Your task to perform on an android device: What's the weather going to be tomorrow? Image 0: 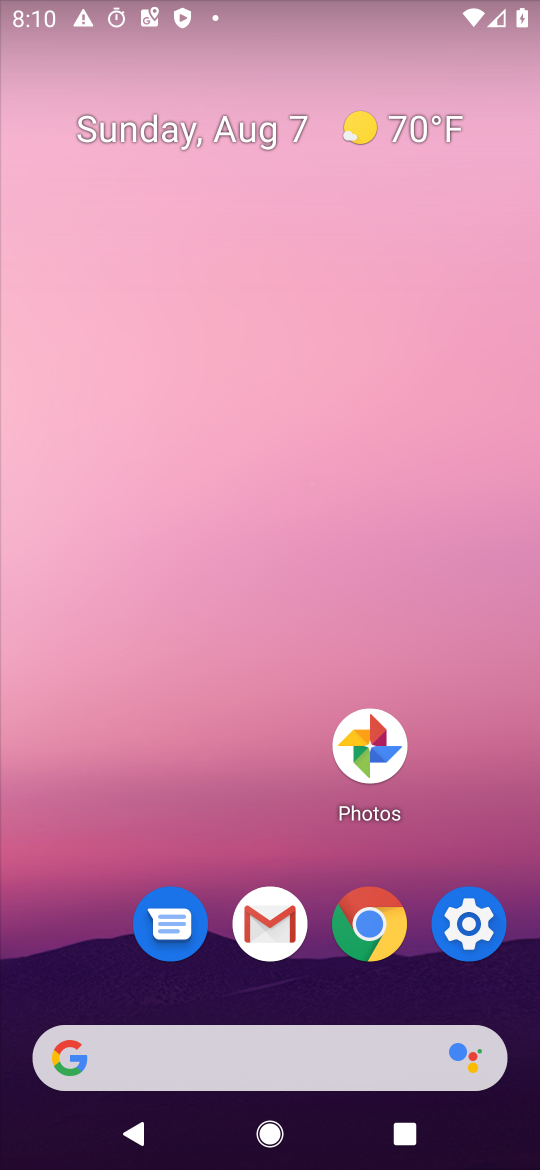
Step 0: drag from (372, 1087) to (394, 282)
Your task to perform on an android device: What's the weather going to be tomorrow? Image 1: 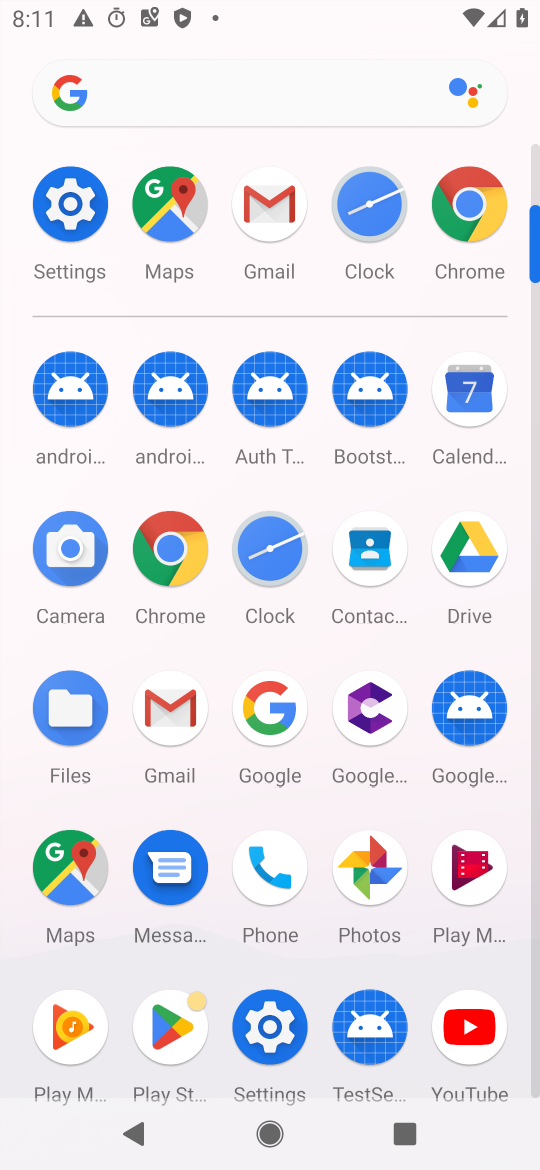
Step 1: click (223, 87)
Your task to perform on an android device: What's the weather going to be tomorrow? Image 2: 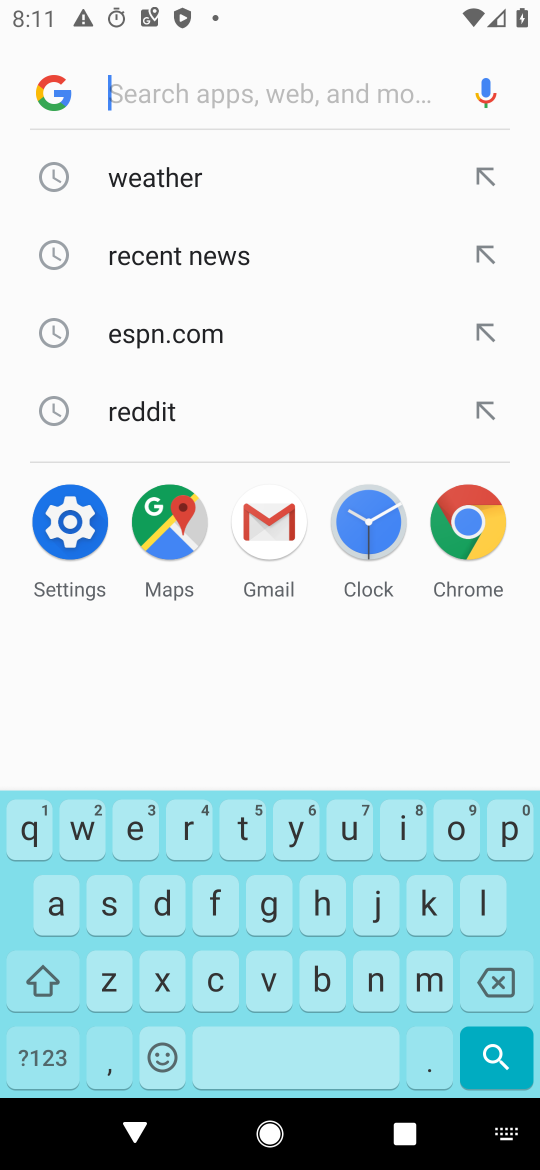
Step 2: click (179, 153)
Your task to perform on an android device: What's the weather going to be tomorrow? Image 3: 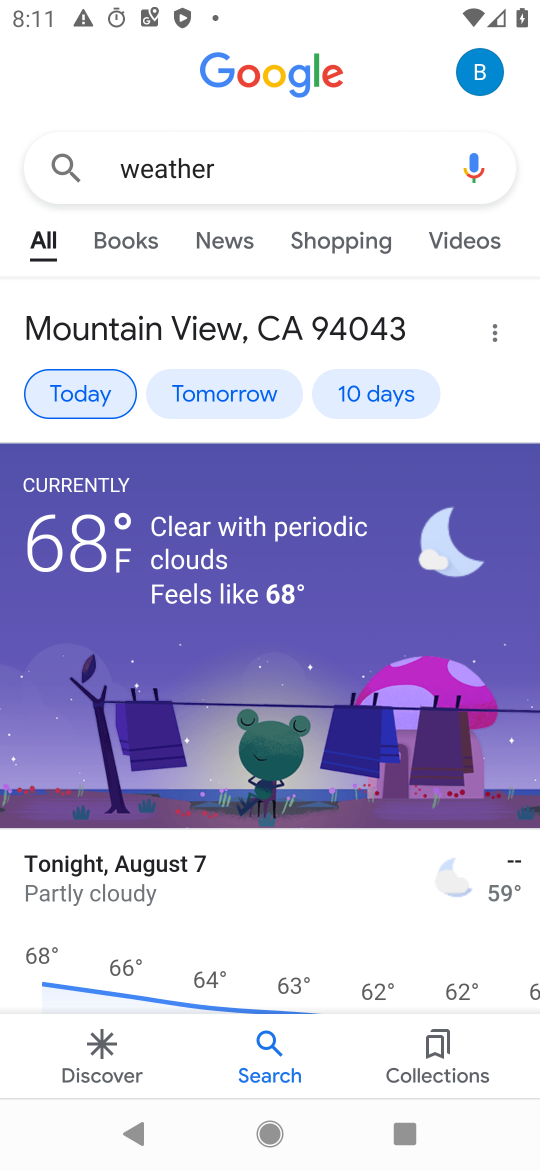
Step 3: click (227, 395)
Your task to perform on an android device: What's the weather going to be tomorrow? Image 4: 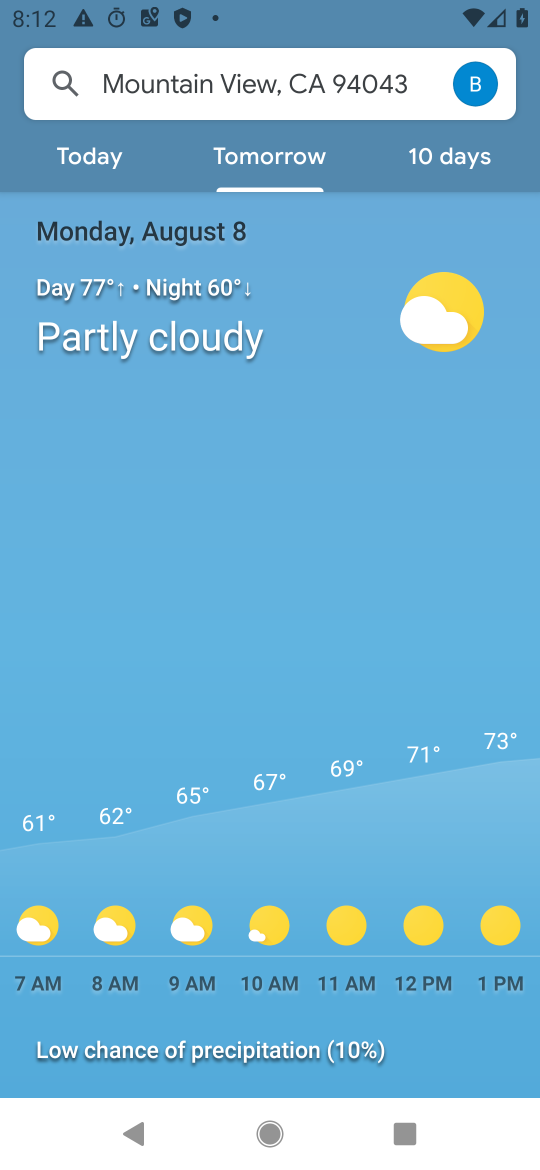
Step 4: task complete